Your task to perform on an android device: Go to display settings Image 0: 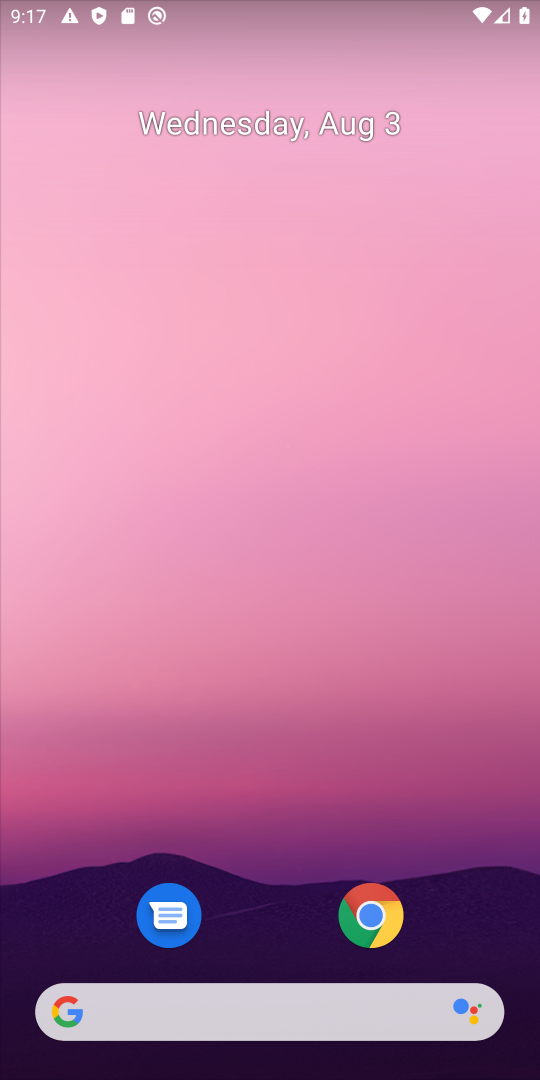
Step 0: drag from (267, 934) to (315, 277)
Your task to perform on an android device: Go to display settings Image 1: 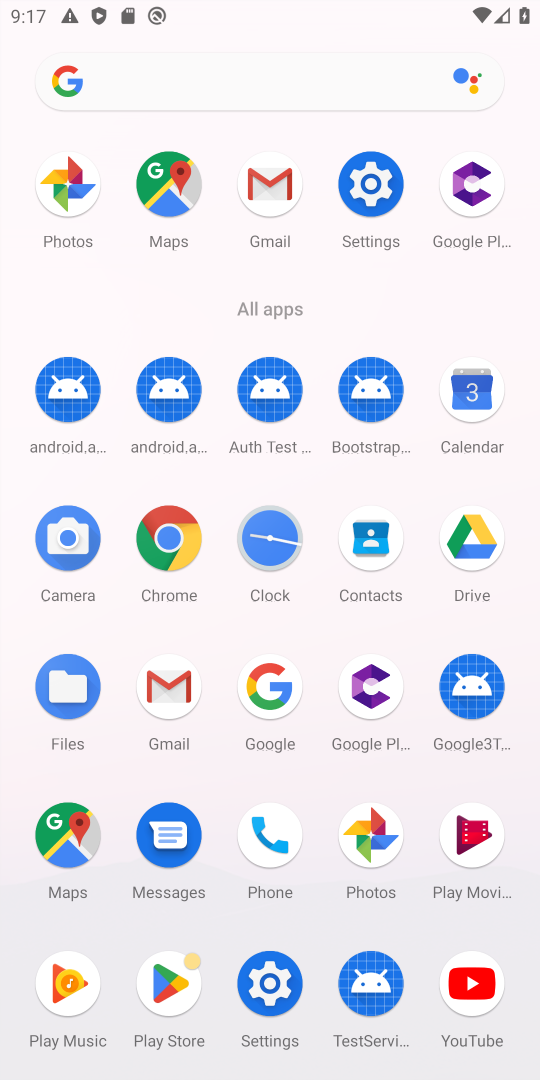
Step 1: click (367, 190)
Your task to perform on an android device: Go to display settings Image 2: 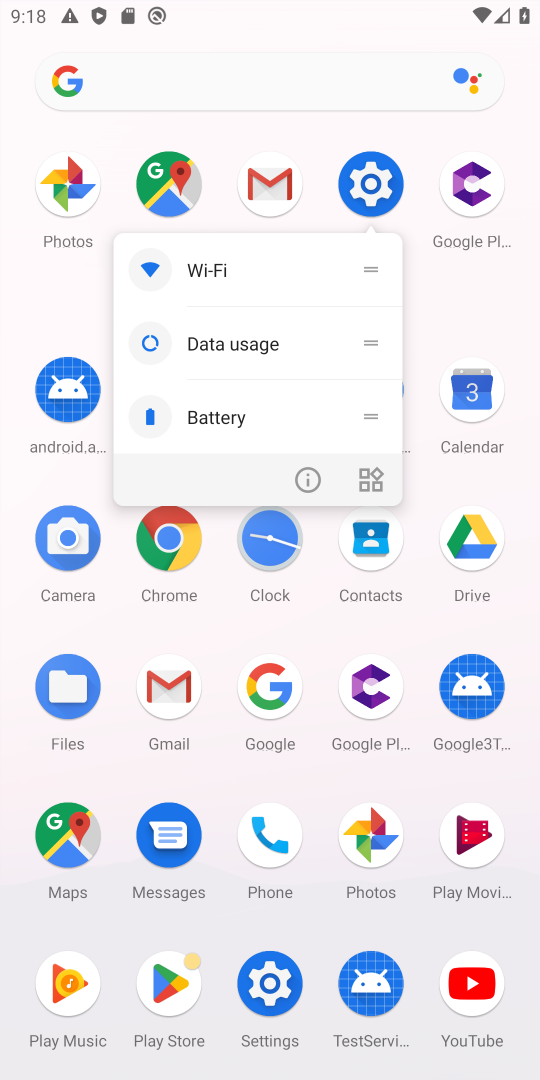
Step 2: click (343, 188)
Your task to perform on an android device: Go to display settings Image 3: 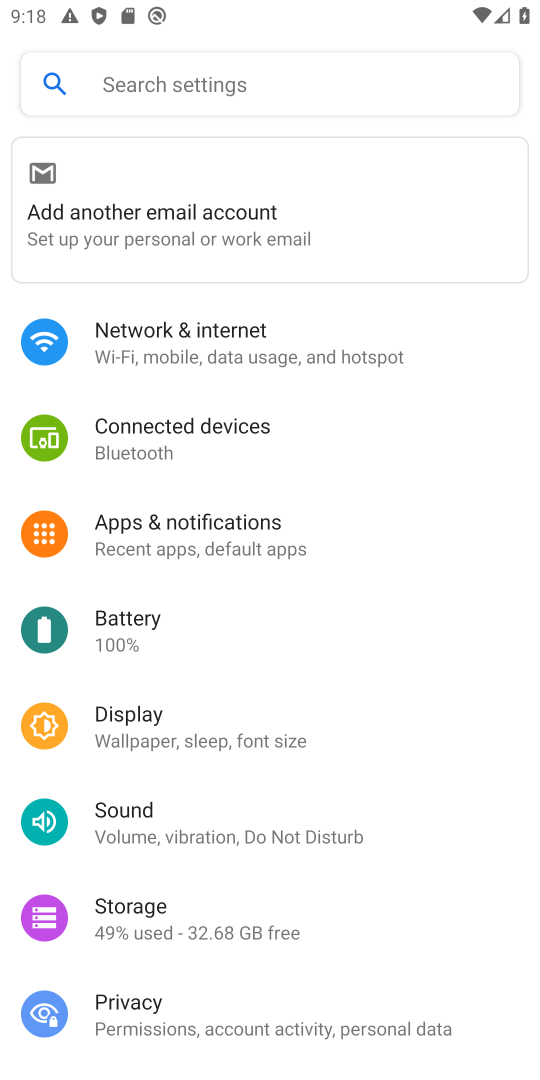
Step 3: click (159, 723)
Your task to perform on an android device: Go to display settings Image 4: 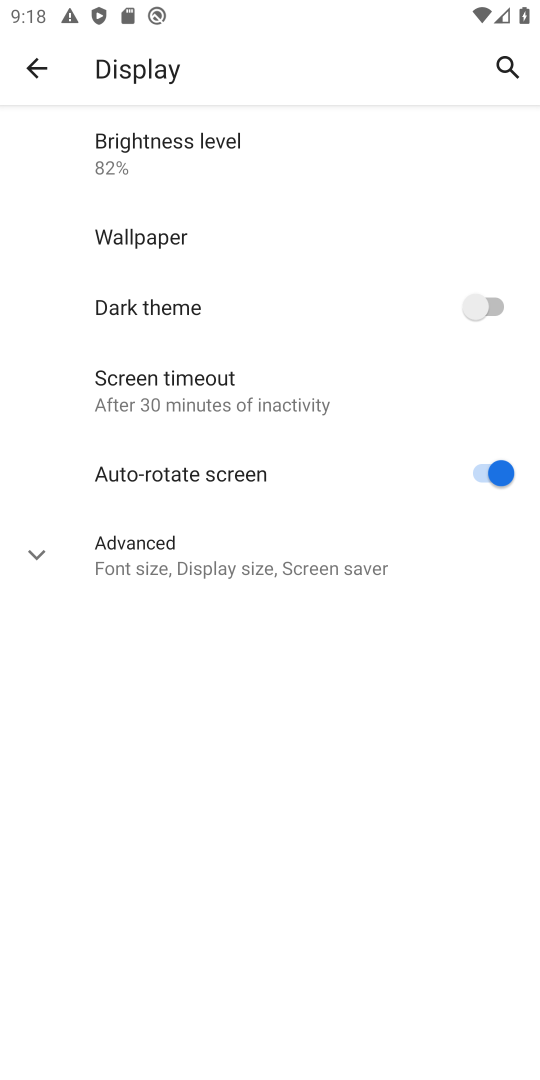
Step 4: click (223, 552)
Your task to perform on an android device: Go to display settings Image 5: 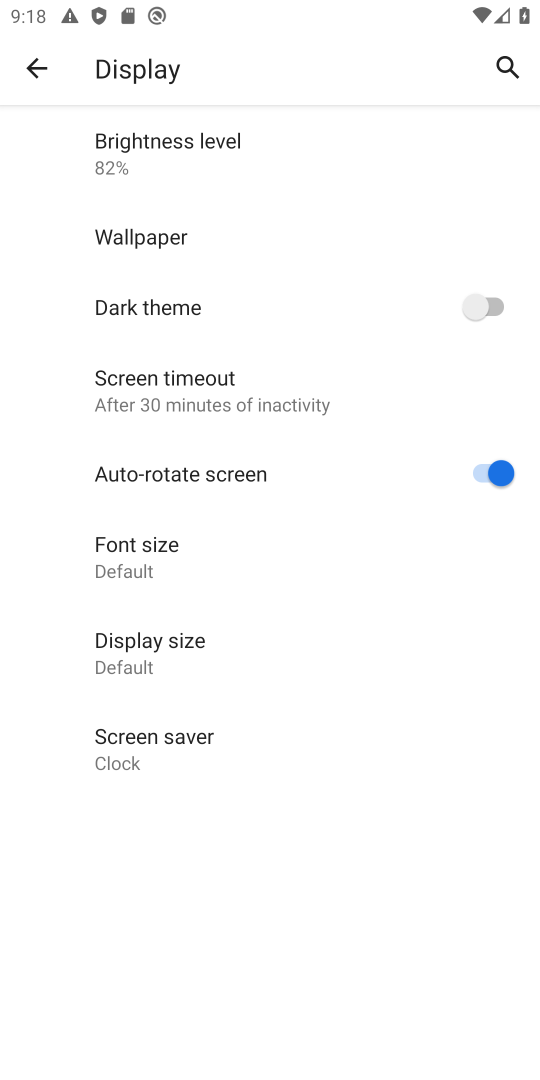
Step 5: task complete